Your task to perform on an android device: open device folders in google photos Image 0: 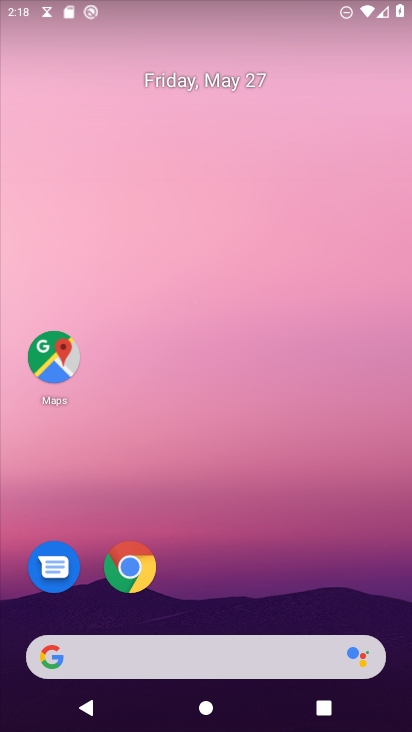
Step 0: drag from (247, 600) to (209, 82)
Your task to perform on an android device: open device folders in google photos Image 1: 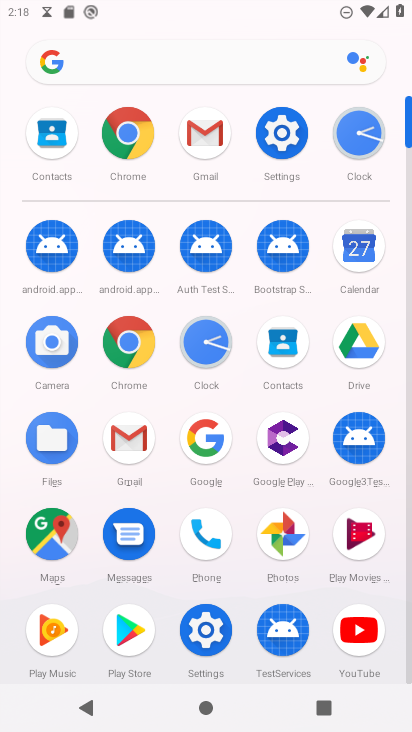
Step 1: click (298, 541)
Your task to perform on an android device: open device folders in google photos Image 2: 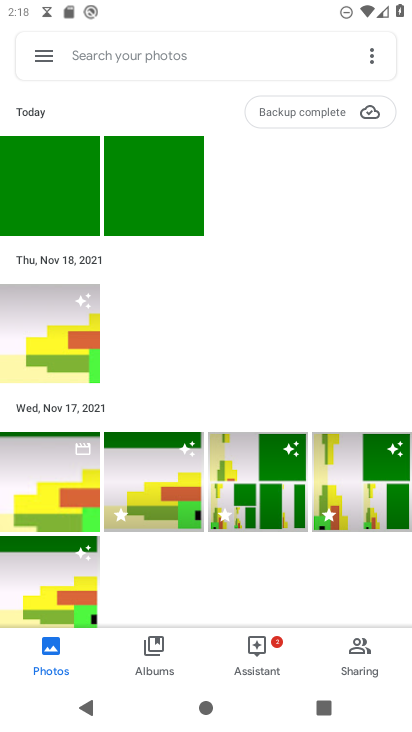
Step 2: click (42, 57)
Your task to perform on an android device: open device folders in google photos Image 3: 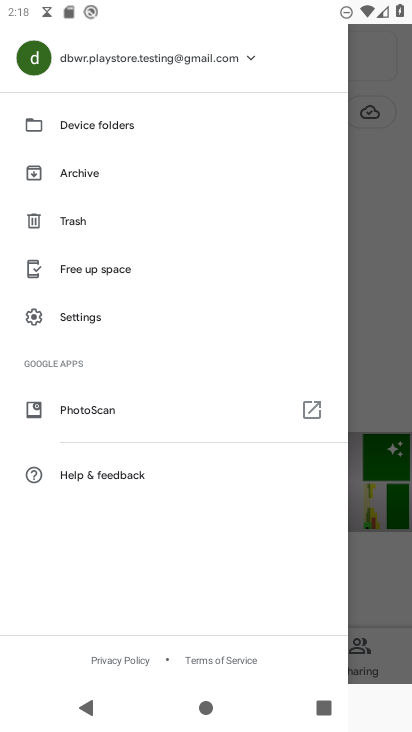
Step 3: click (84, 129)
Your task to perform on an android device: open device folders in google photos Image 4: 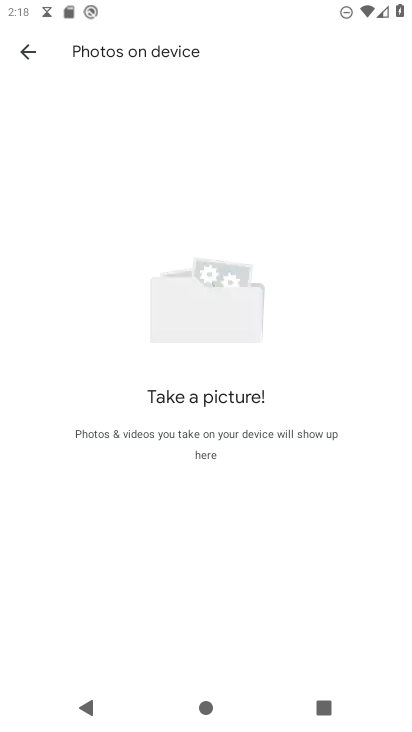
Step 4: task complete